Your task to perform on an android device: Open network settings Image 0: 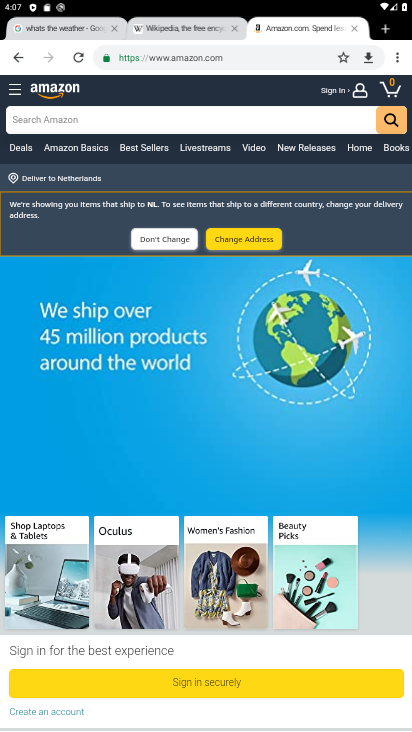
Step 0: press home button
Your task to perform on an android device: Open network settings Image 1: 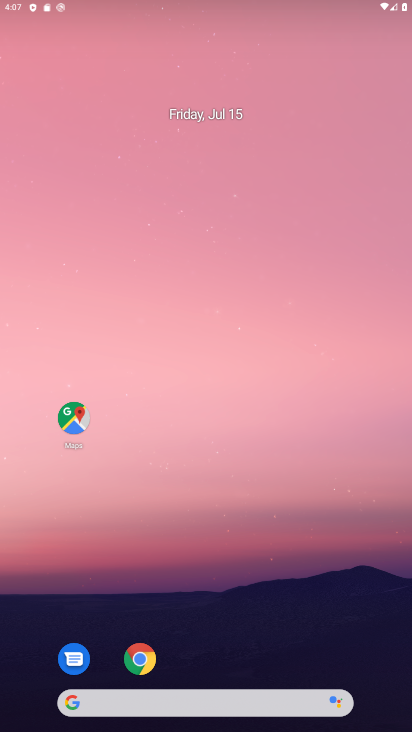
Step 1: drag from (316, 615) to (394, 20)
Your task to perform on an android device: Open network settings Image 2: 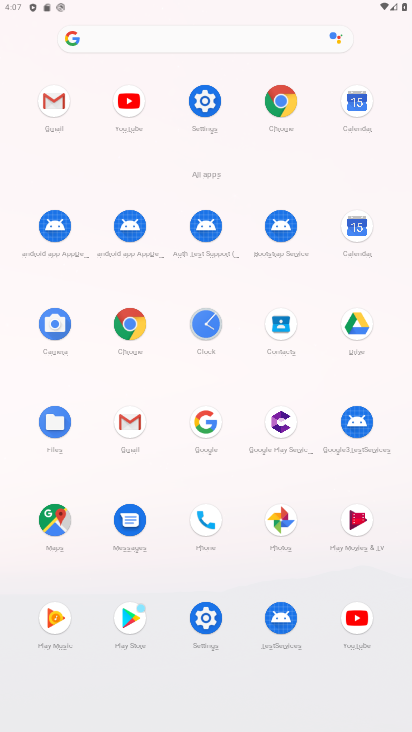
Step 2: click (210, 106)
Your task to perform on an android device: Open network settings Image 3: 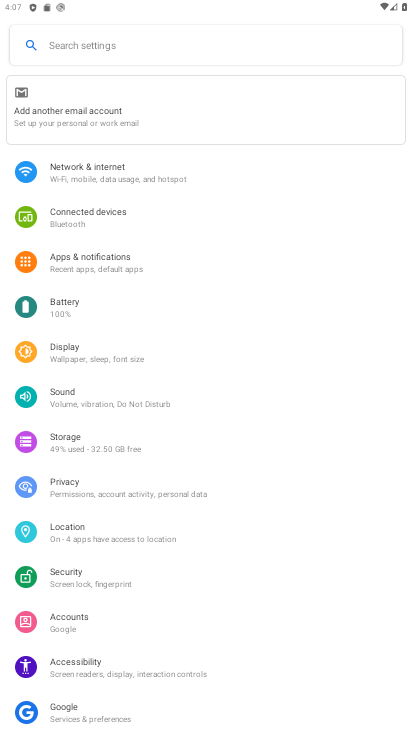
Step 3: click (117, 166)
Your task to perform on an android device: Open network settings Image 4: 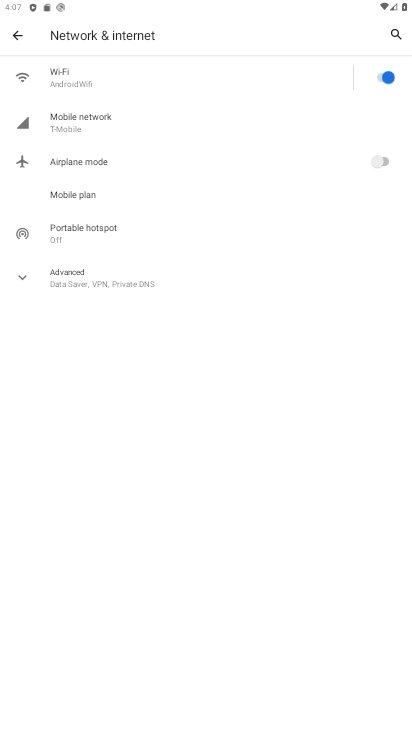
Step 4: click (101, 115)
Your task to perform on an android device: Open network settings Image 5: 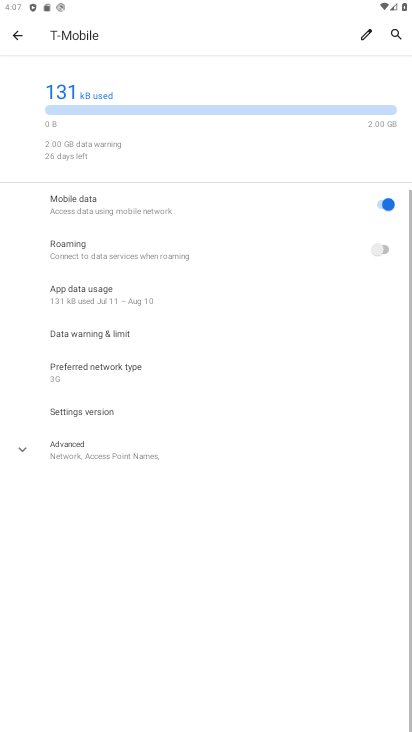
Step 5: task complete